Your task to perform on an android device: Open settings Image 0: 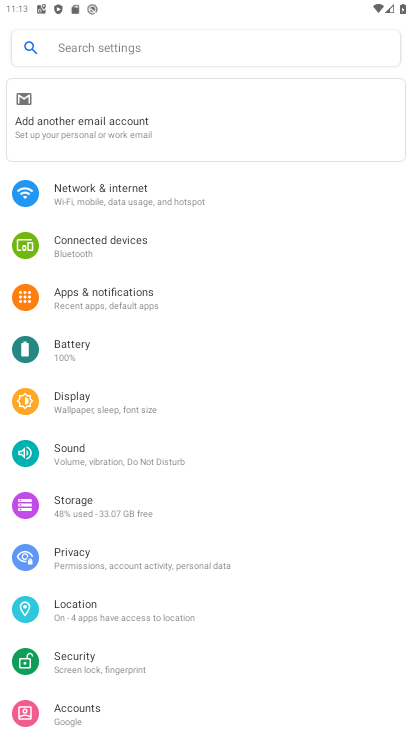
Step 0: task complete